Your task to perform on an android device: turn off translation in the chrome app Image 0: 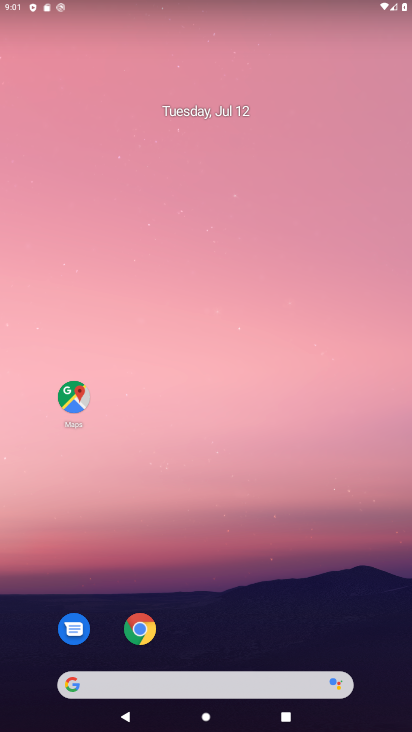
Step 0: click (145, 628)
Your task to perform on an android device: turn off translation in the chrome app Image 1: 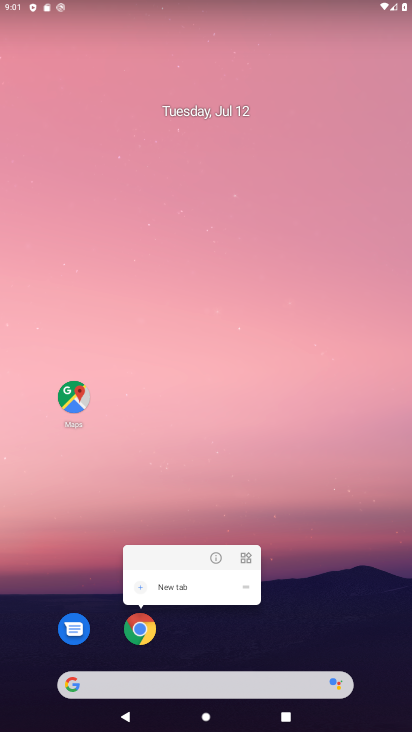
Step 1: click (153, 636)
Your task to perform on an android device: turn off translation in the chrome app Image 2: 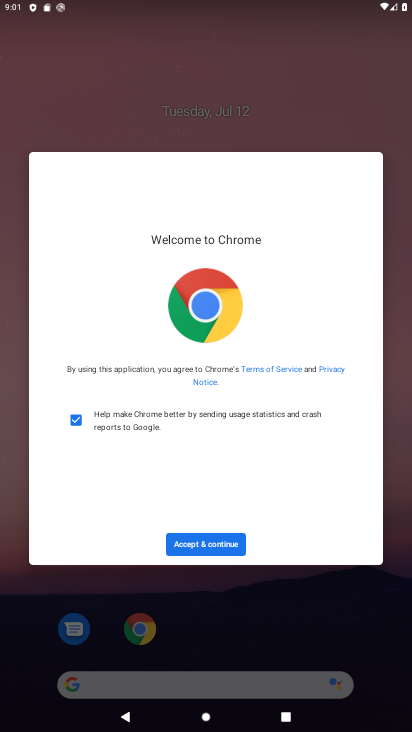
Step 2: click (203, 546)
Your task to perform on an android device: turn off translation in the chrome app Image 3: 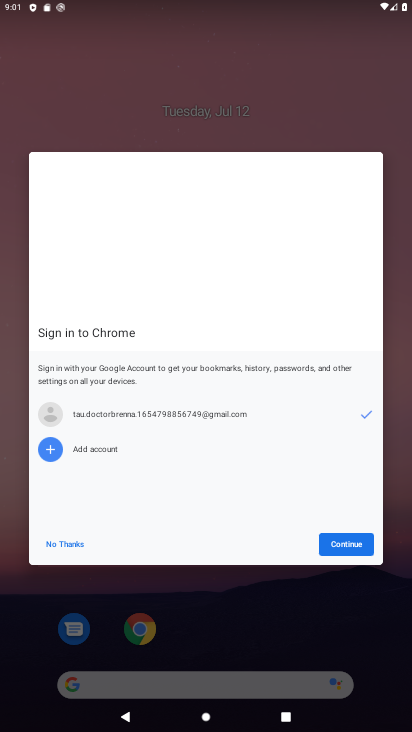
Step 3: click (343, 552)
Your task to perform on an android device: turn off translation in the chrome app Image 4: 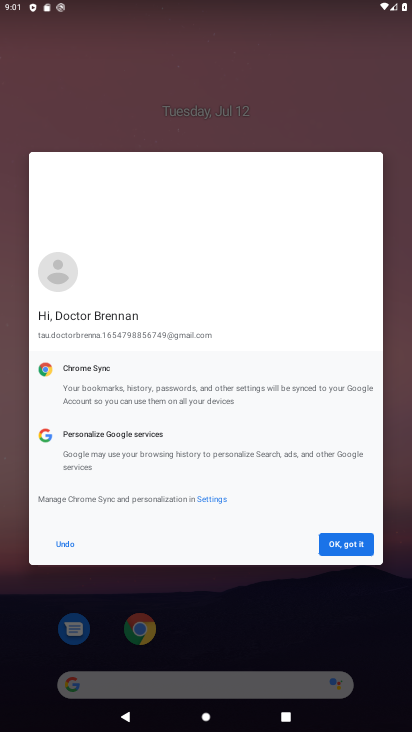
Step 4: click (343, 552)
Your task to perform on an android device: turn off translation in the chrome app Image 5: 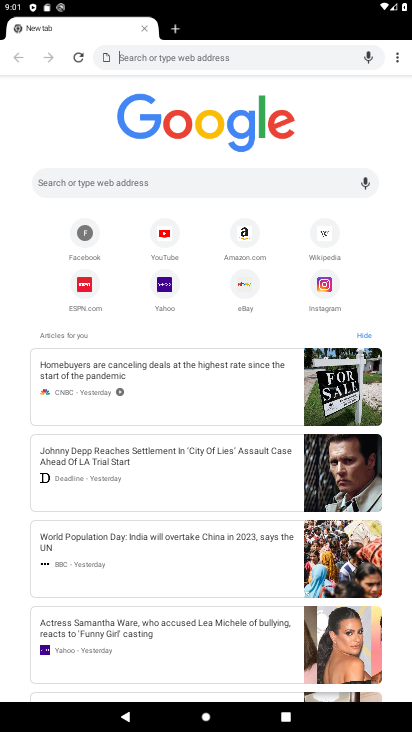
Step 5: click (396, 51)
Your task to perform on an android device: turn off translation in the chrome app Image 6: 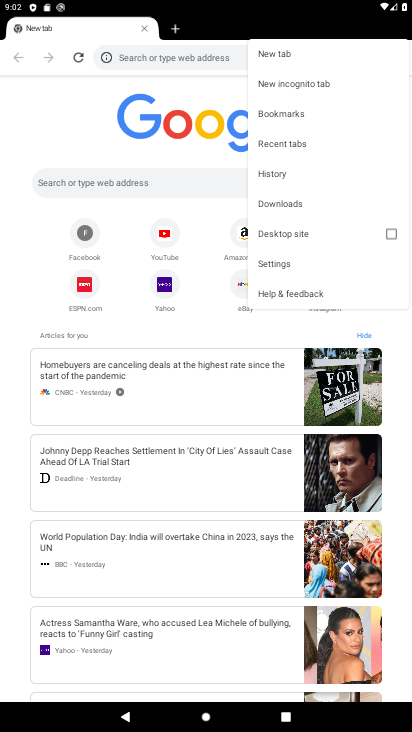
Step 6: click (292, 260)
Your task to perform on an android device: turn off translation in the chrome app Image 7: 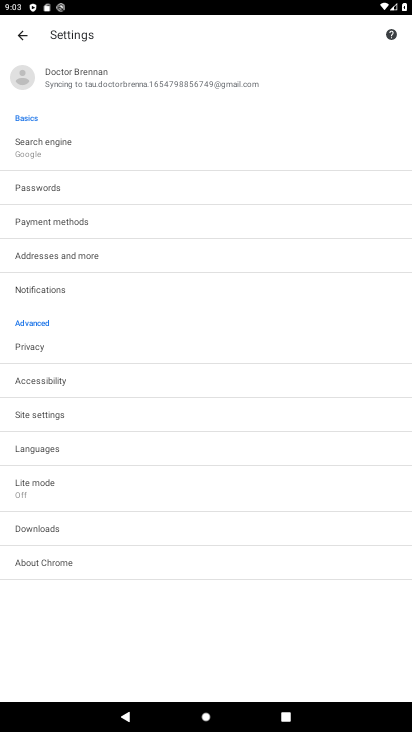
Step 7: click (48, 446)
Your task to perform on an android device: turn off translation in the chrome app Image 8: 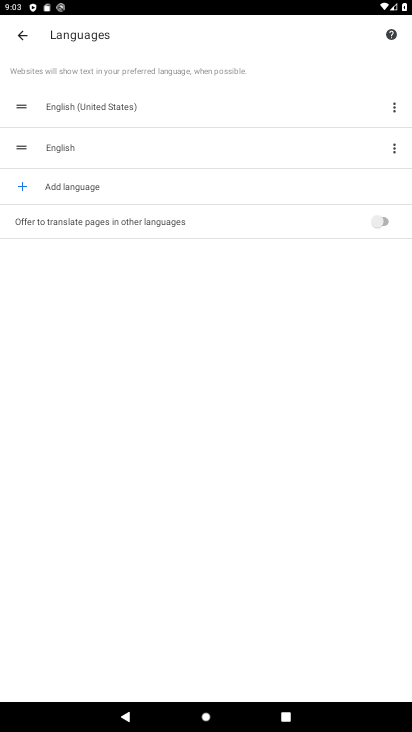
Step 8: task complete